Your task to perform on an android device: see creations saved in the google photos Image 0: 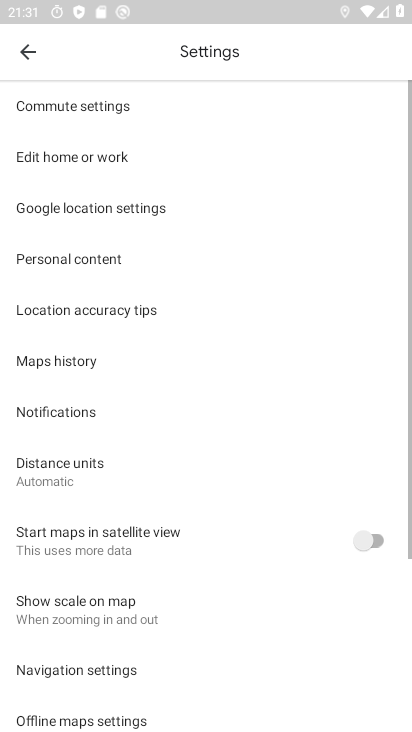
Step 0: press home button
Your task to perform on an android device: see creations saved in the google photos Image 1: 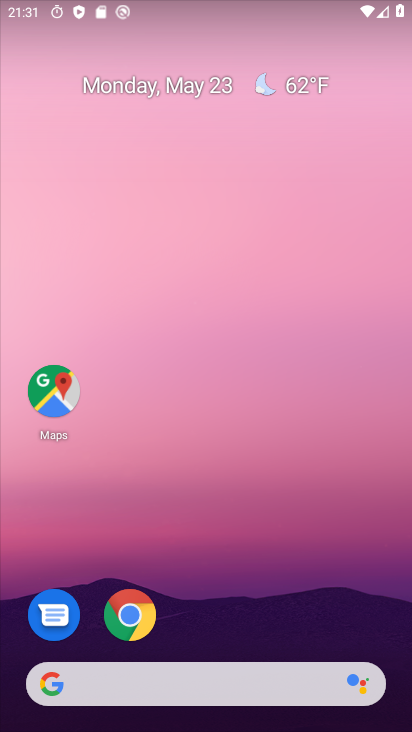
Step 1: drag from (248, 598) to (255, 122)
Your task to perform on an android device: see creations saved in the google photos Image 2: 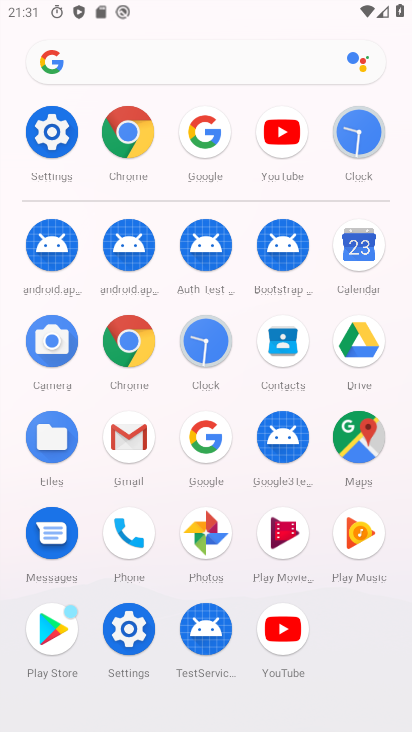
Step 2: click (214, 538)
Your task to perform on an android device: see creations saved in the google photos Image 3: 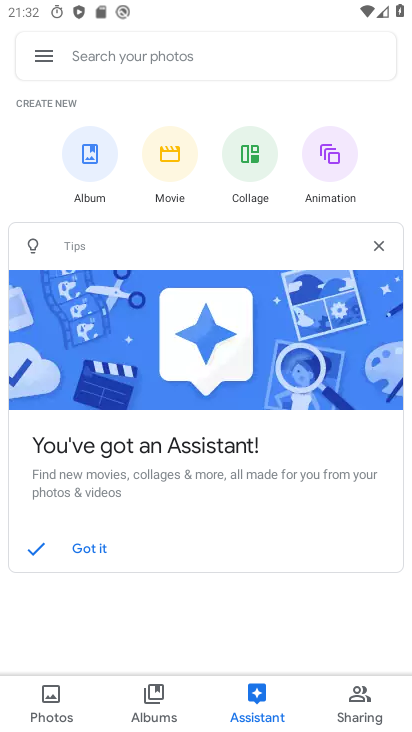
Step 3: click (208, 60)
Your task to perform on an android device: see creations saved in the google photos Image 4: 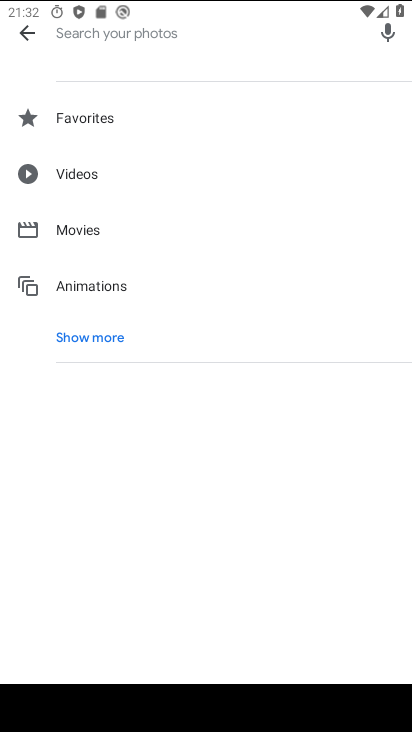
Step 4: click (104, 333)
Your task to perform on an android device: see creations saved in the google photos Image 5: 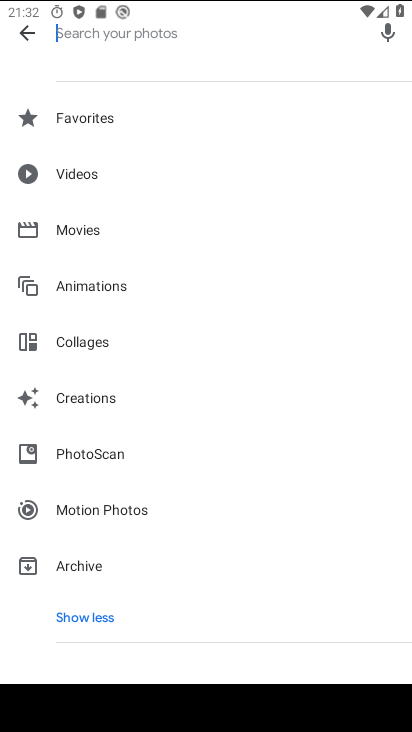
Step 5: click (89, 398)
Your task to perform on an android device: see creations saved in the google photos Image 6: 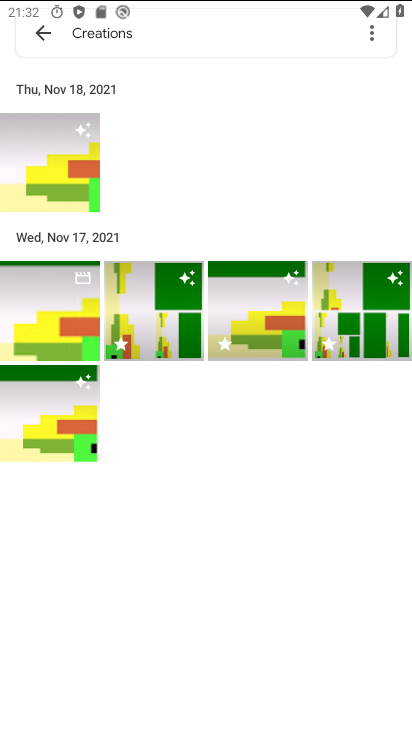
Step 6: task complete